Your task to perform on an android device: Set the phone to "Do not disturb". Image 0: 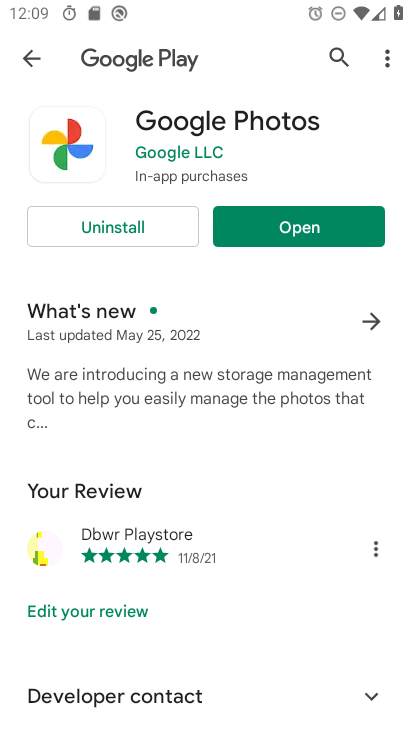
Step 0: press home button
Your task to perform on an android device: Set the phone to "Do not disturb". Image 1: 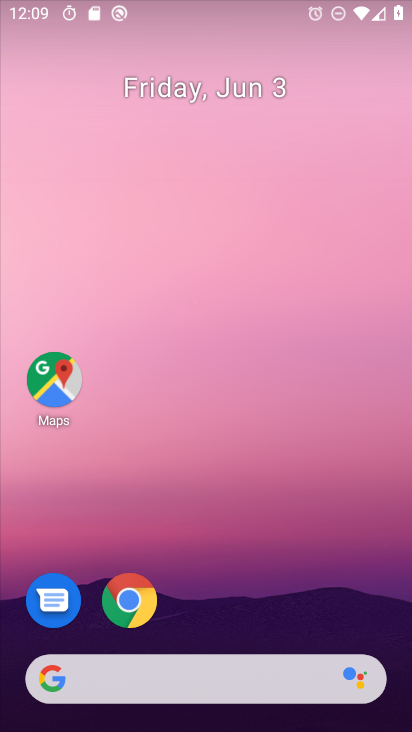
Step 1: drag from (237, 612) to (234, 72)
Your task to perform on an android device: Set the phone to "Do not disturb". Image 2: 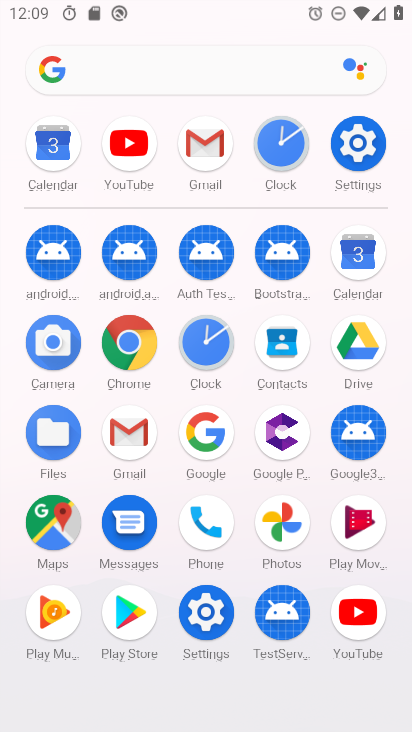
Step 2: click (349, 142)
Your task to perform on an android device: Set the phone to "Do not disturb". Image 3: 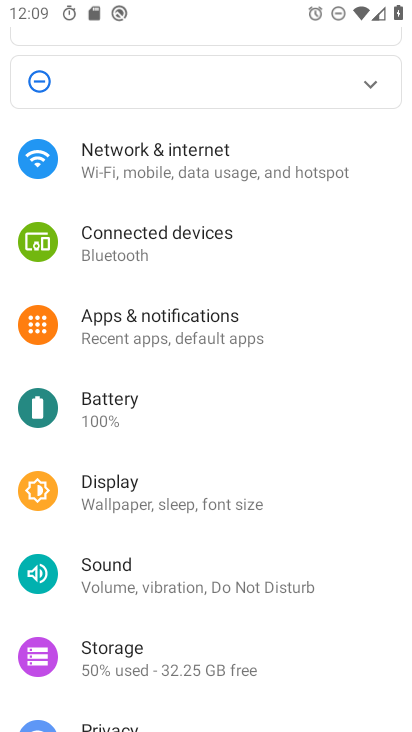
Step 3: click (182, 581)
Your task to perform on an android device: Set the phone to "Do not disturb". Image 4: 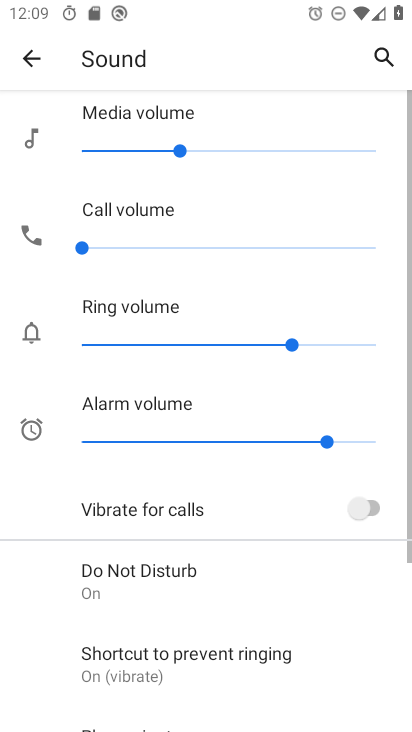
Step 4: click (166, 575)
Your task to perform on an android device: Set the phone to "Do not disturb". Image 5: 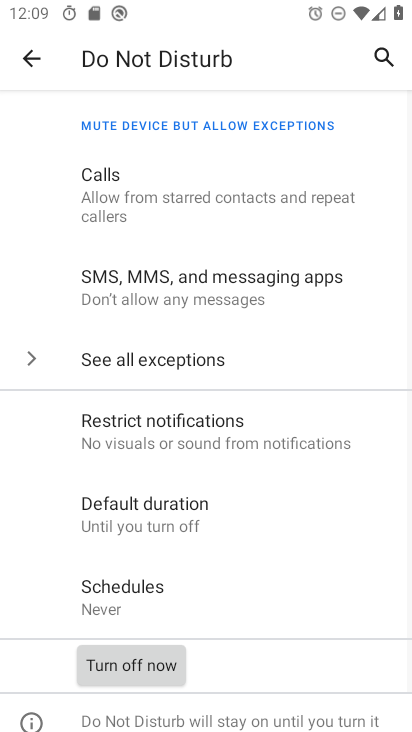
Step 5: task complete